Your task to perform on an android device: Go to location settings Image 0: 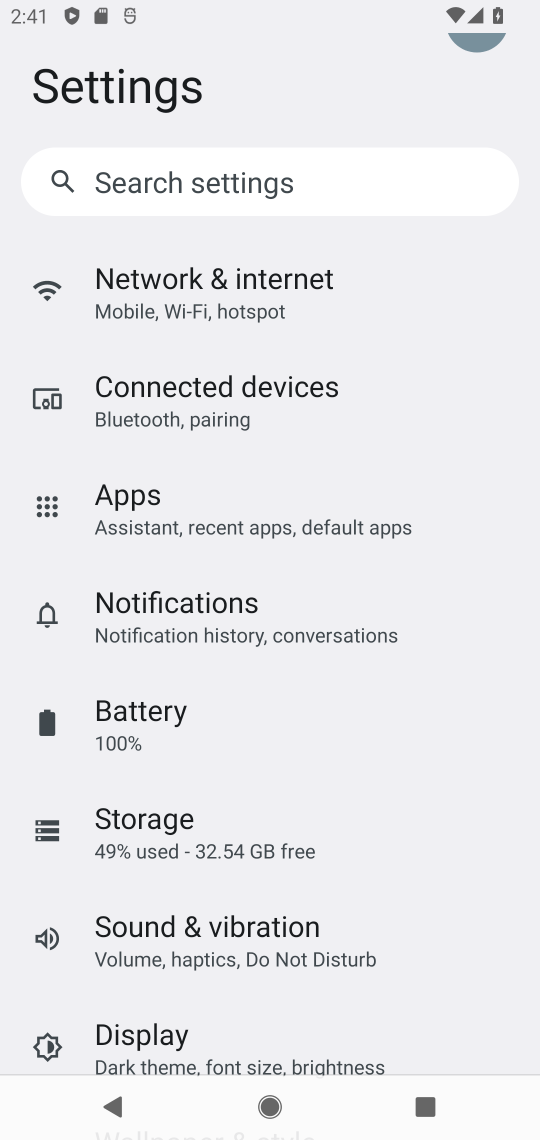
Step 0: drag from (190, 978) to (270, 472)
Your task to perform on an android device: Go to location settings Image 1: 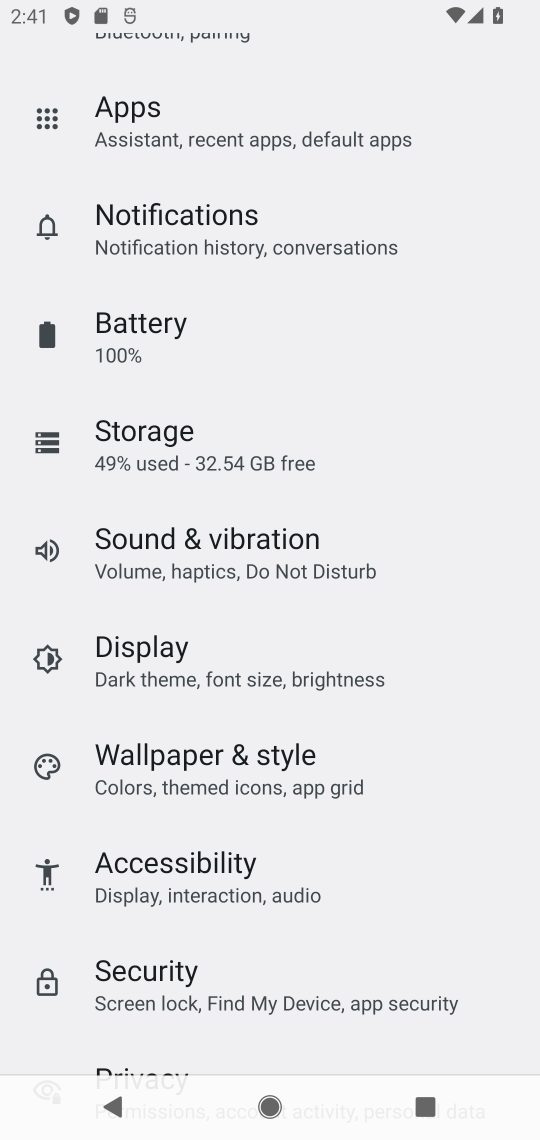
Step 1: drag from (214, 854) to (326, 313)
Your task to perform on an android device: Go to location settings Image 2: 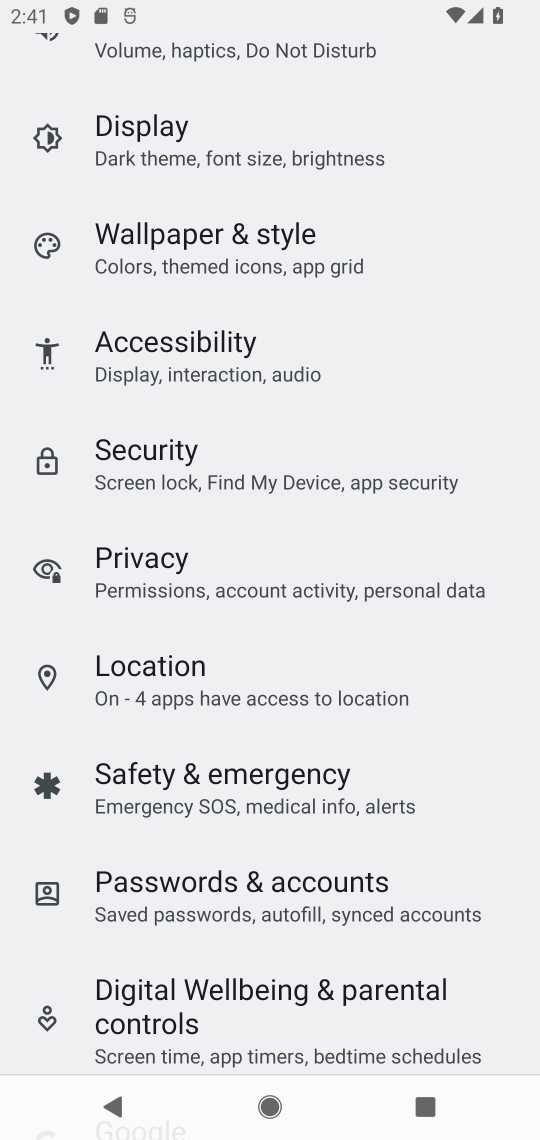
Step 2: click (201, 689)
Your task to perform on an android device: Go to location settings Image 3: 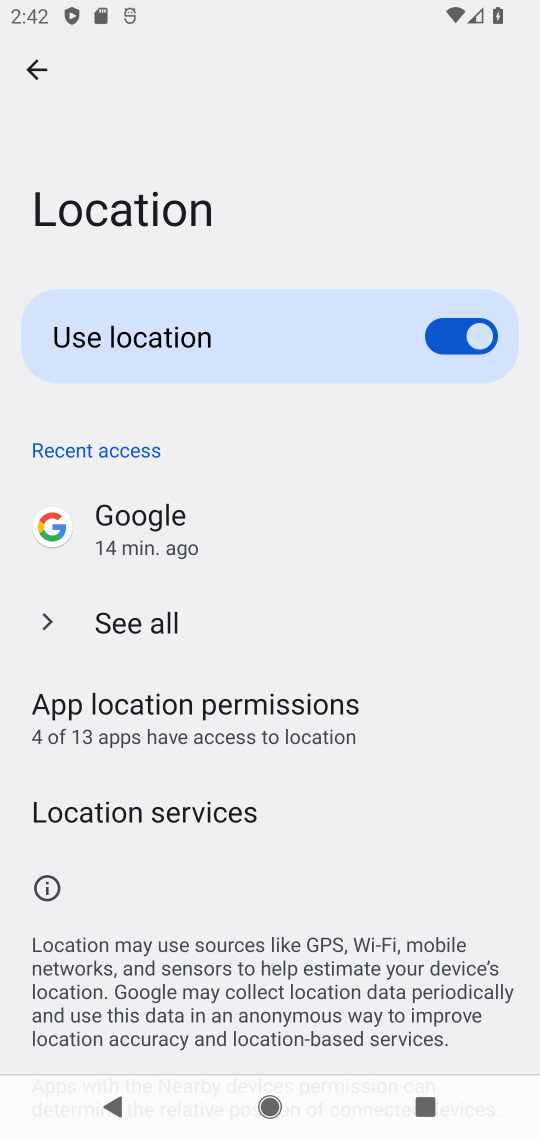
Step 3: task complete